Your task to perform on an android device: snooze an email in the gmail app Image 0: 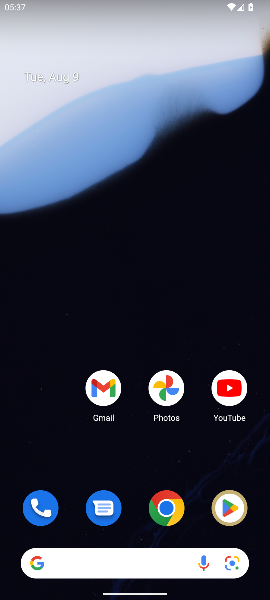
Step 0: click (109, 393)
Your task to perform on an android device: snooze an email in the gmail app Image 1: 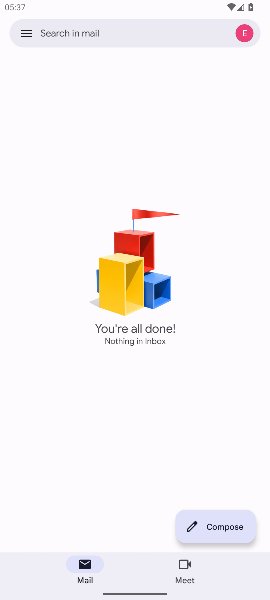
Step 1: click (21, 38)
Your task to perform on an android device: snooze an email in the gmail app Image 2: 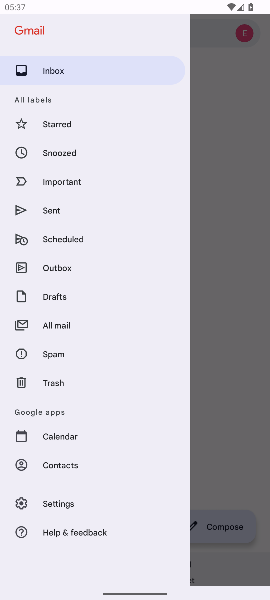
Step 2: click (57, 325)
Your task to perform on an android device: snooze an email in the gmail app Image 3: 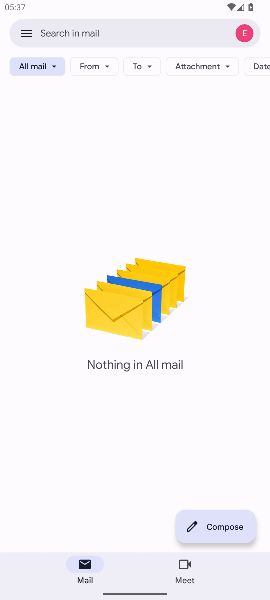
Step 3: task complete